Your task to perform on an android device: open sync settings in chrome Image 0: 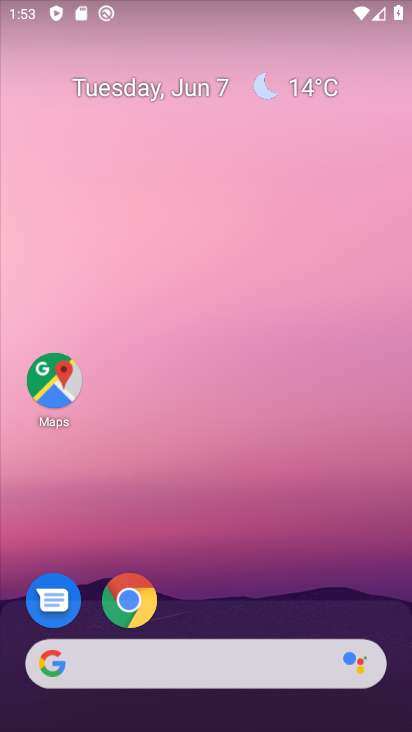
Step 0: click (133, 607)
Your task to perform on an android device: open sync settings in chrome Image 1: 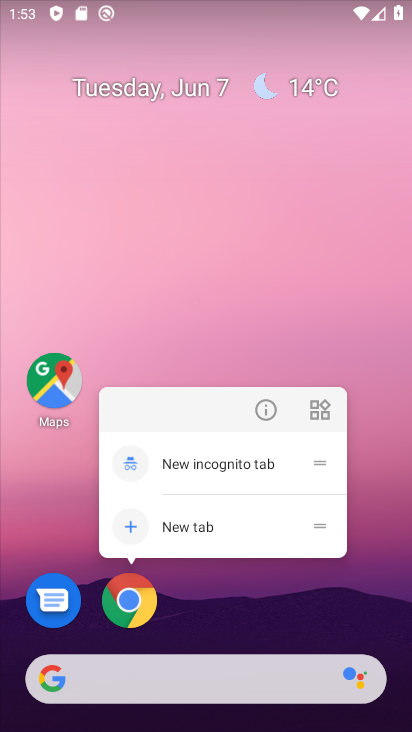
Step 1: click (133, 607)
Your task to perform on an android device: open sync settings in chrome Image 2: 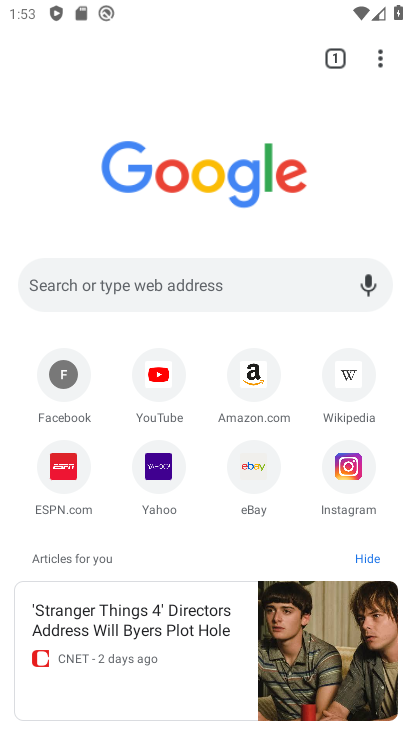
Step 2: click (379, 49)
Your task to perform on an android device: open sync settings in chrome Image 3: 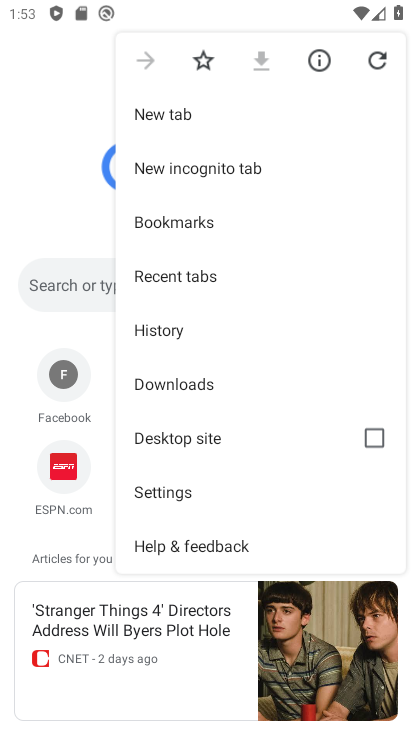
Step 3: click (168, 491)
Your task to perform on an android device: open sync settings in chrome Image 4: 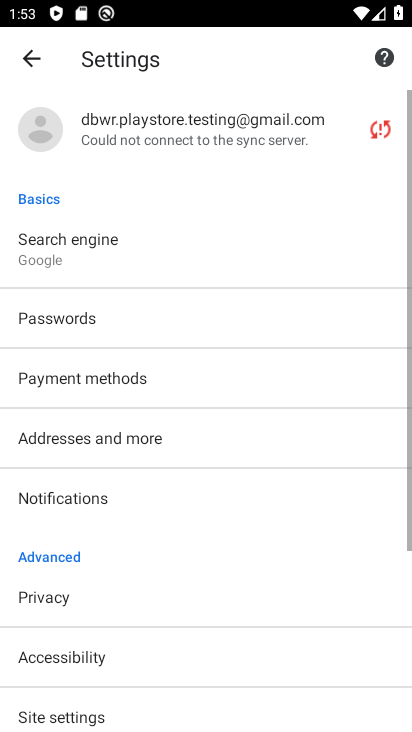
Step 4: click (126, 134)
Your task to perform on an android device: open sync settings in chrome Image 5: 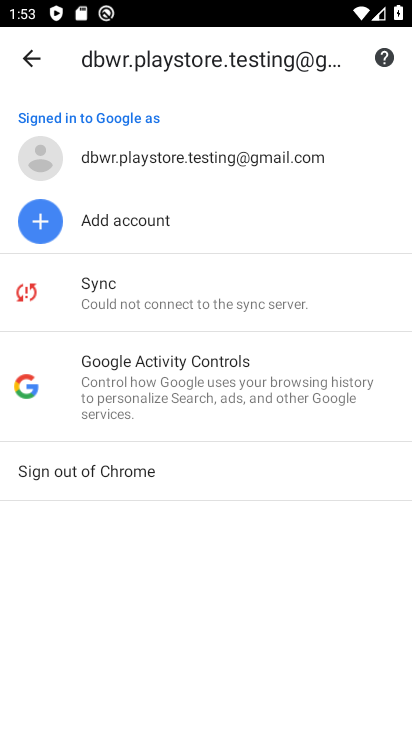
Step 5: click (138, 312)
Your task to perform on an android device: open sync settings in chrome Image 6: 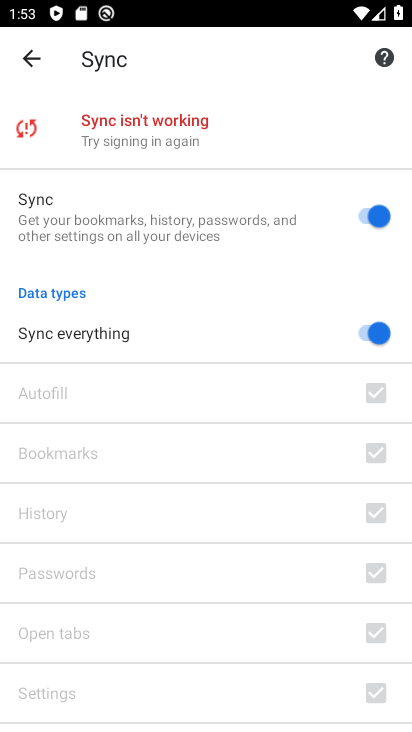
Step 6: task complete